Your task to perform on an android device: Open the map Image 0: 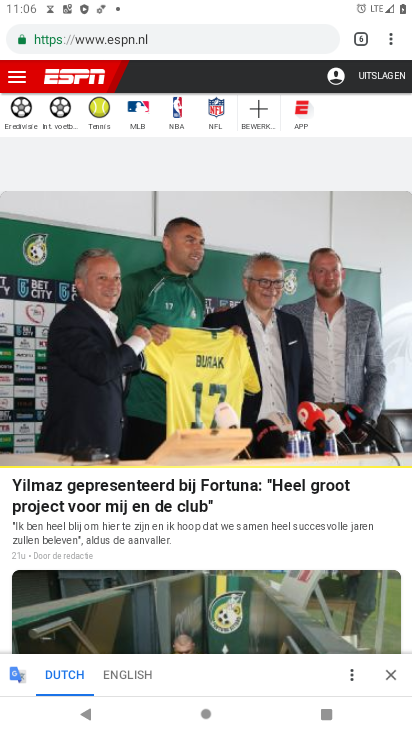
Step 0: press home button
Your task to perform on an android device: Open the map Image 1: 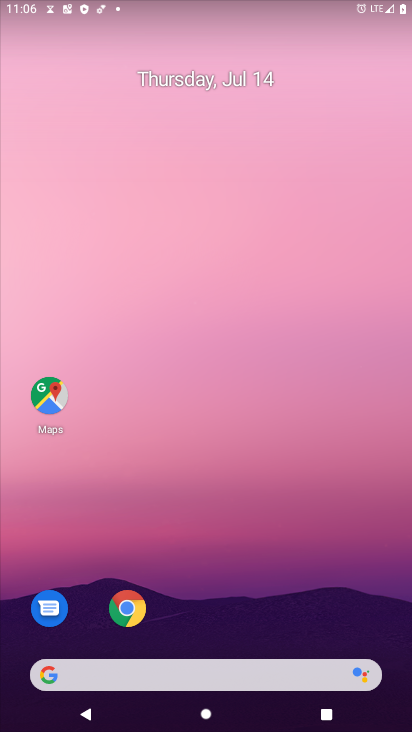
Step 1: drag from (227, 724) to (210, 278)
Your task to perform on an android device: Open the map Image 2: 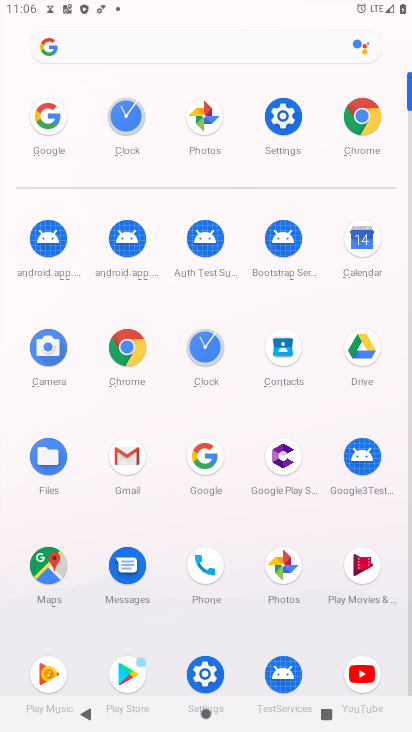
Step 2: click (49, 569)
Your task to perform on an android device: Open the map Image 3: 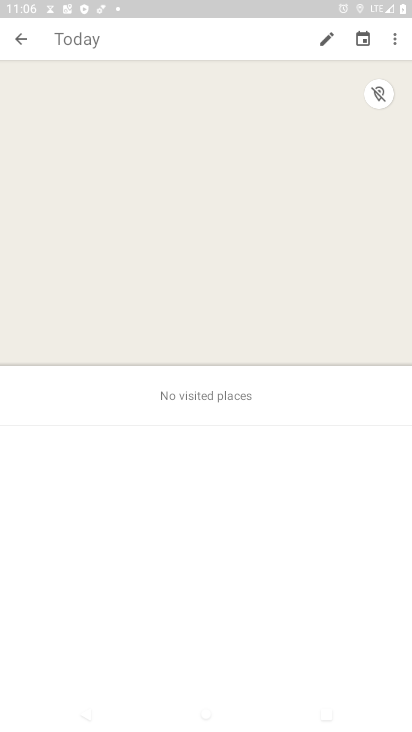
Step 3: click (20, 37)
Your task to perform on an android device: Open the map Image 4: 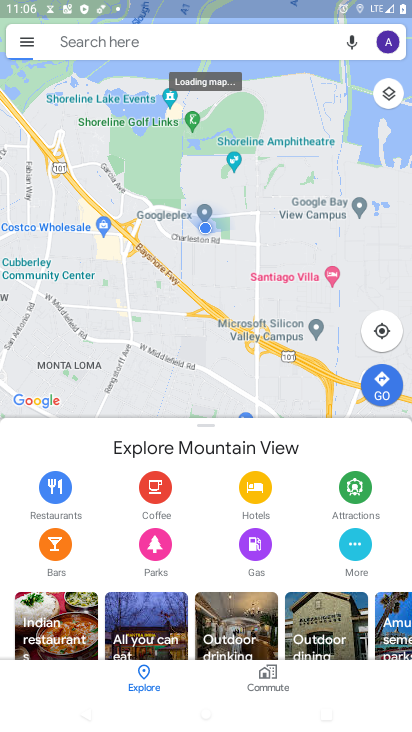
Step 4: task complete